Your task to perform on an android device: Open Wikipedia Image 0: 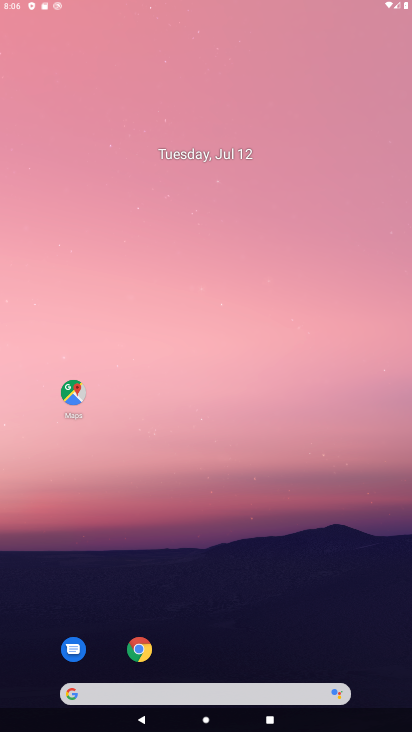
Step 0: drag from (197, 653) to (196, 193)
Your task to perform on an android device: Open Wikipedia Image 1: 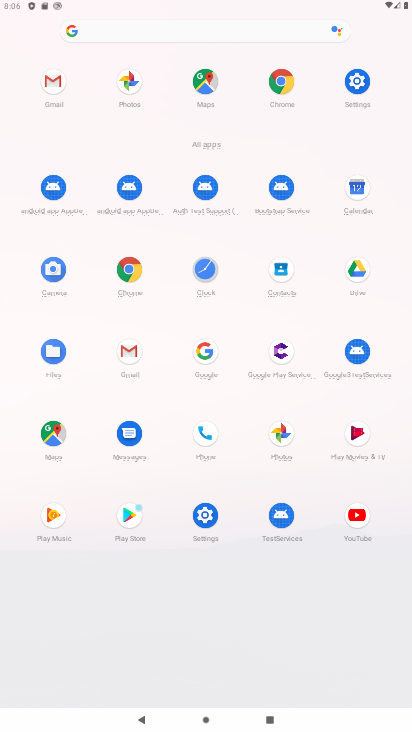
Step 1: click (129, 271)
Your task to perform on an android device: Open Wikipedia Image 2: 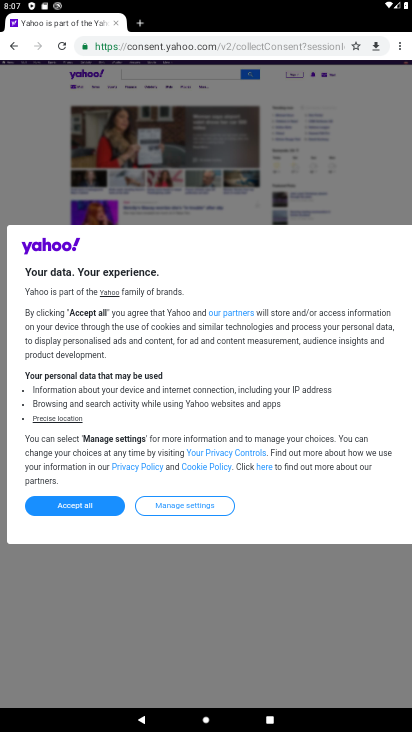
Step 2: press back button
Your task to perform on an android device: Open Wikipedia Image 3: 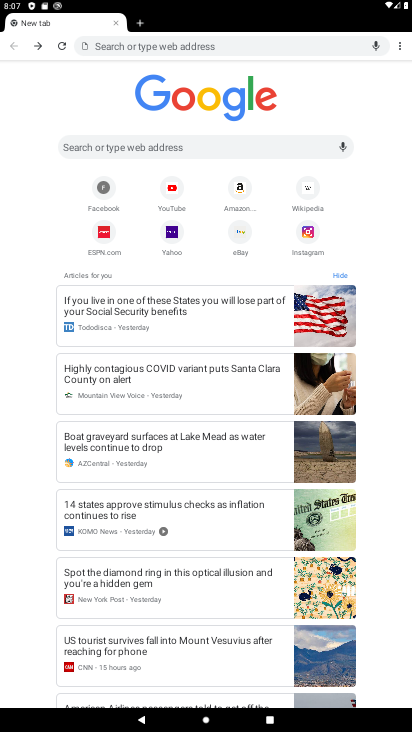
Step 3: click (311, 188)
Your task to perform on an android device: Open Wikipedia Image 4: 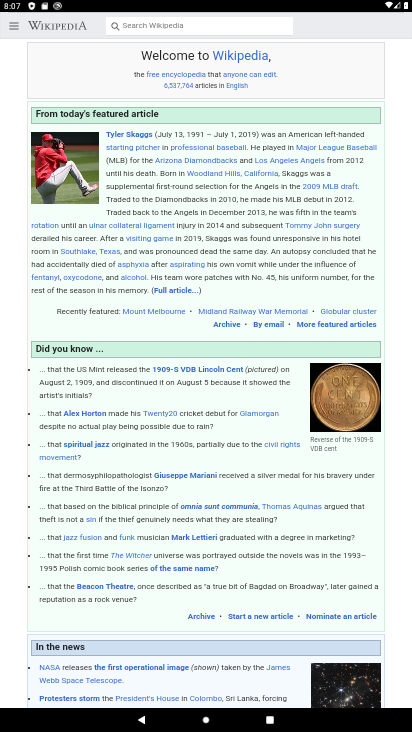
Step 4: task complete